Your task to perform on an android device: Open Google Maps and go to "Timeline" Image 0: 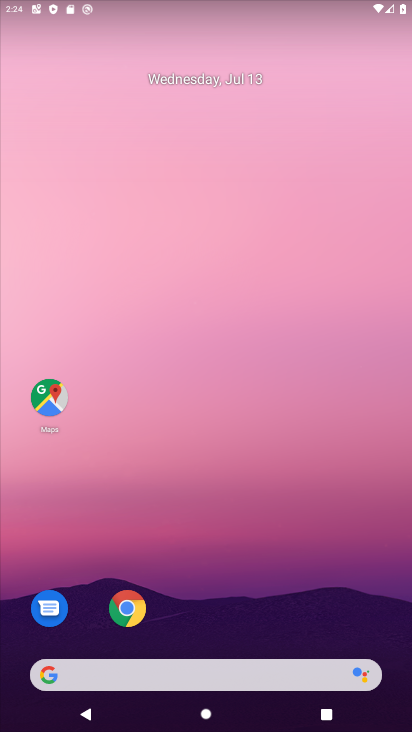
Step 0: drag from (207, 549) to (219, 238)
Your task to perform on an android device: Open Google Maps and go to "Timeline" Image 1: 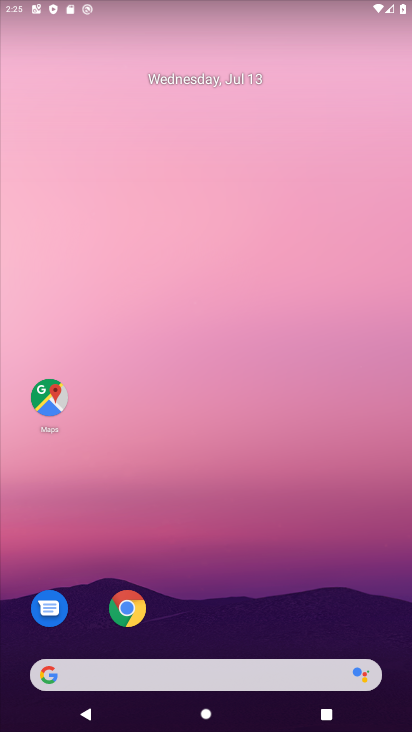
Step 1: drag from (219, 639) to (242, 194)
Your task to perform on an android device: Open Google Maps and go to "Timeline" Image 2: 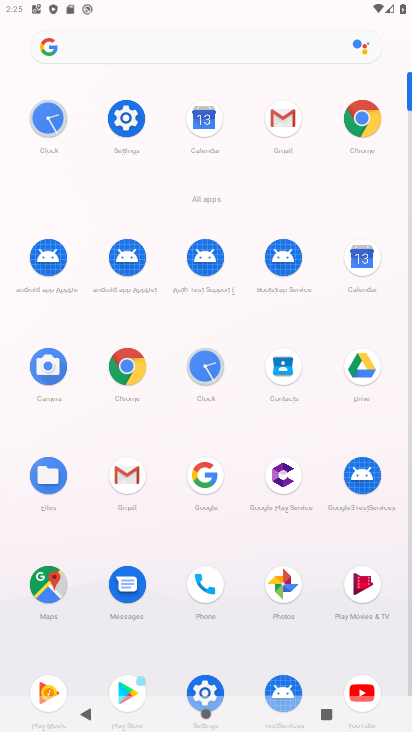
Step 2: click (48, 579)
Your task to perform on an android device: Open Google Maps and go to "Timeline" Image 3: 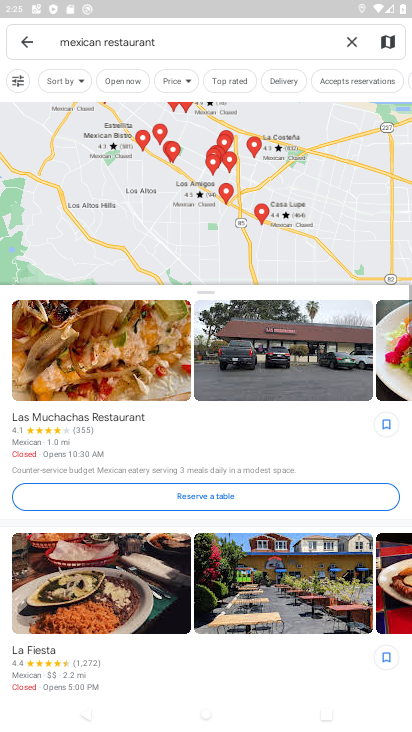
Step 3: click (23, 46)
Your task to perform on an android device: Open Google Maps and go to "Timeline" Image 4: 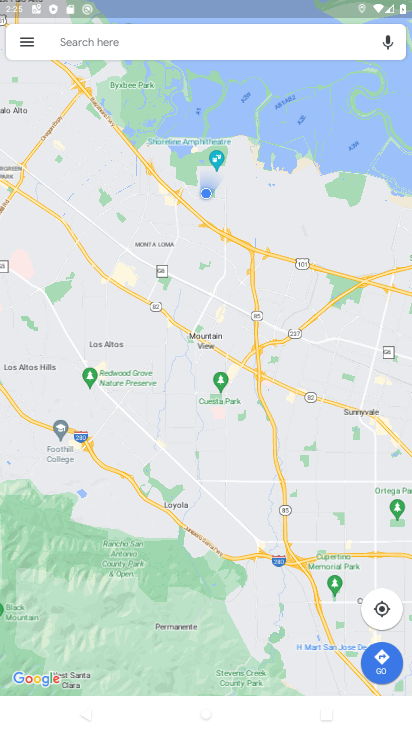
Step 4: click (25, 41)
Your task to perform on an android device: Open Google Maps and go to "Timeline" Image 5: 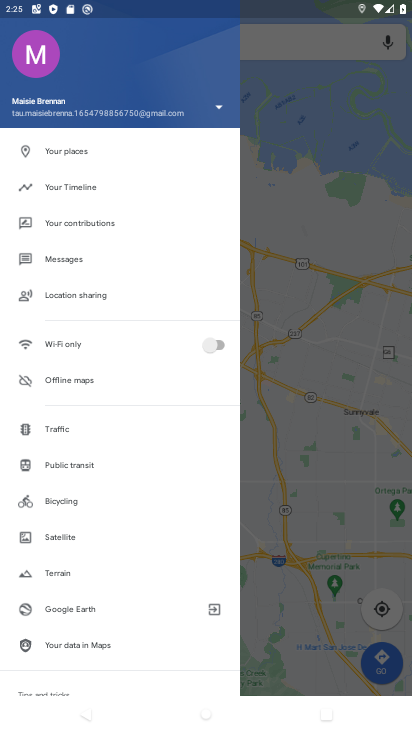
Step 5: click (87, 188)
Your task to perform on an android device: Open Google Maps and go to "Timeline" Image 6: 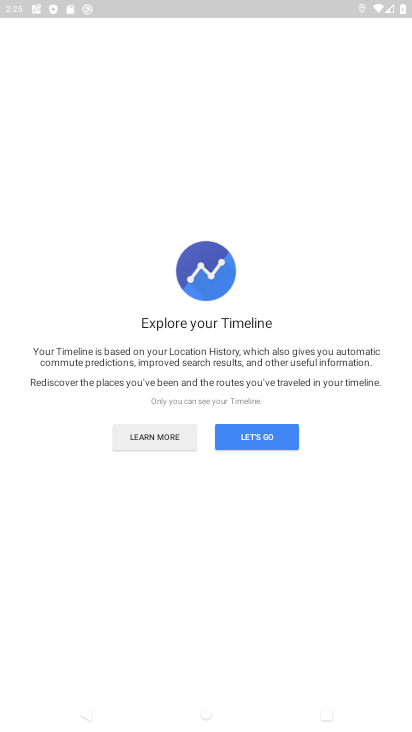
Step 6: click (288, 429)
Your task to perform on an android device: Open Google Maps and go to "Timeline" Image 7: 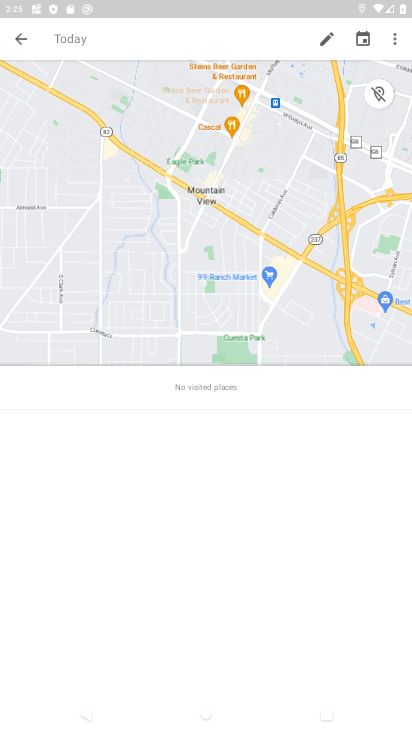
Step 7: task complete